Your task to perform on an android device: Do I have any events tomorrow? Image 0: 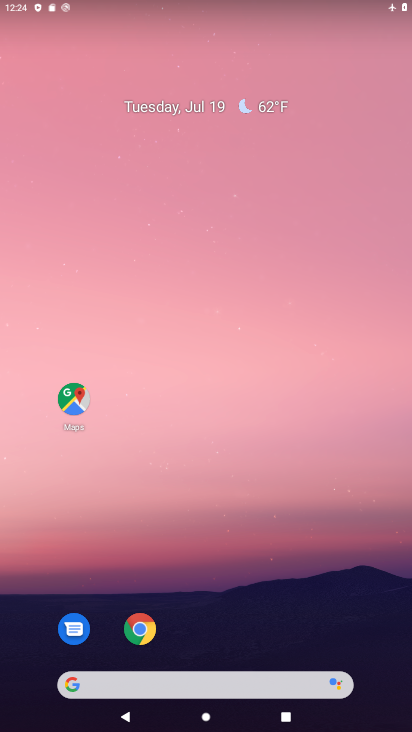
Step 0: drag from (209, 644) to (178, 118)
Your task to perform on an android device: Do I have any events tomorrow? Image 1: 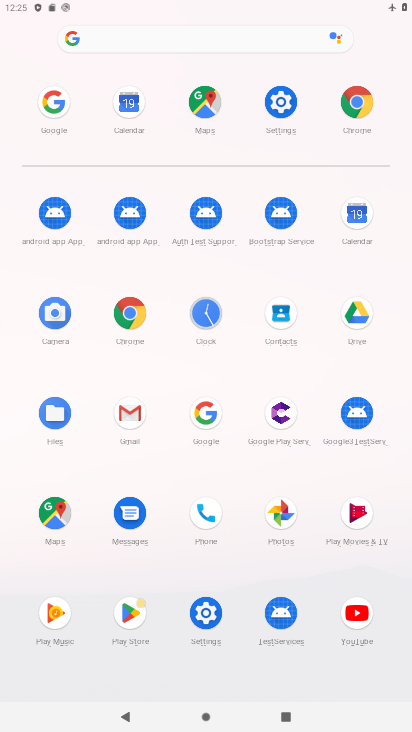
Step 1: click (353, 222)
Your task to perform on an android device: Do I have any events tomorrow? Image 2: 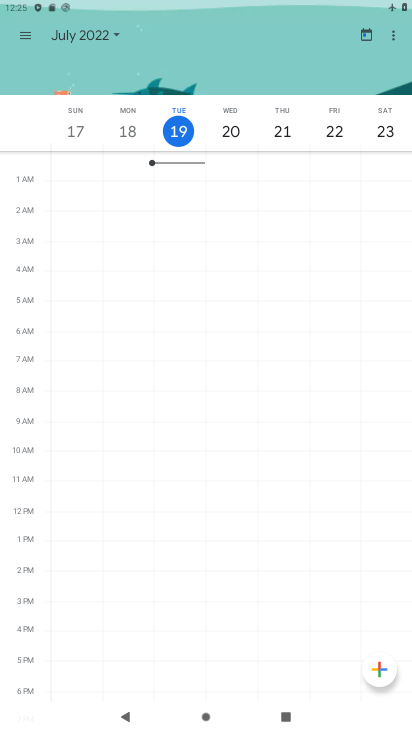
Step 2: click (223, 133)
Your task to perform on an android device: Do I have any events tomorrow? Image 3: 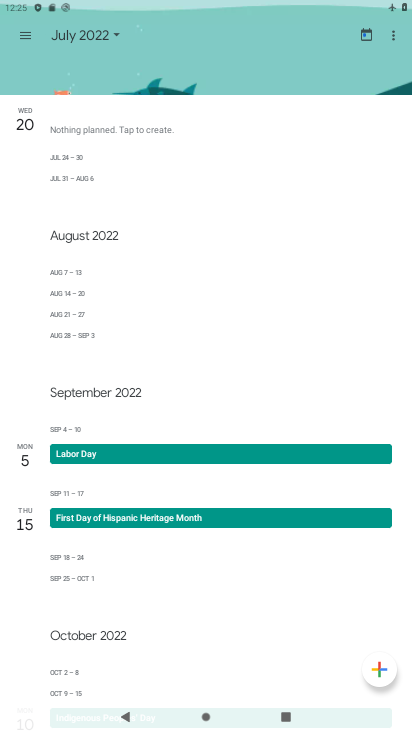
Step 3: task complete